Your task to perform on an android device: toggle javascript in the chrome app Image 0: 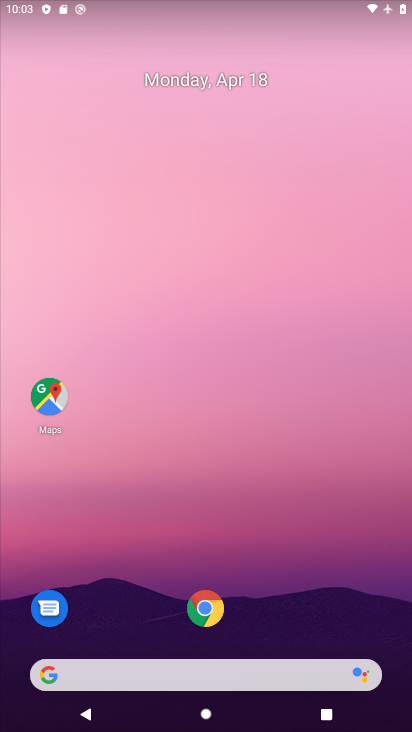
Step 0: click (212, 620)
Your task to perform on an android device: toggle javascript in the chrome app Image 1: 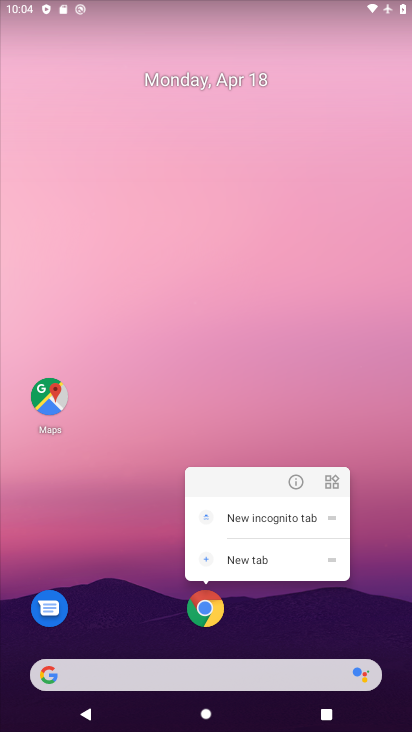
Step 1: click (212, 620)
Your task to perform on an android device: toggle javascript in the chrome app Image 2: 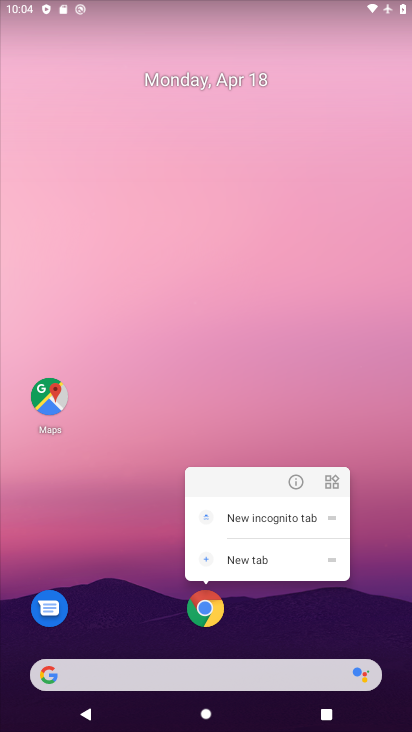
Step 2: click (212, 620)
Your task to perform on an android device: toggle javascript in the chrome app Image 3: 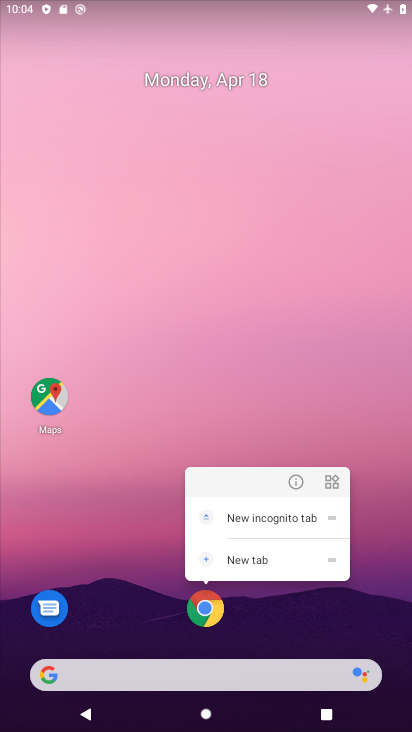
Step 3: click (202, 616)
Your task to perform on an android device: toggle javascript in the chrome app Image 4: 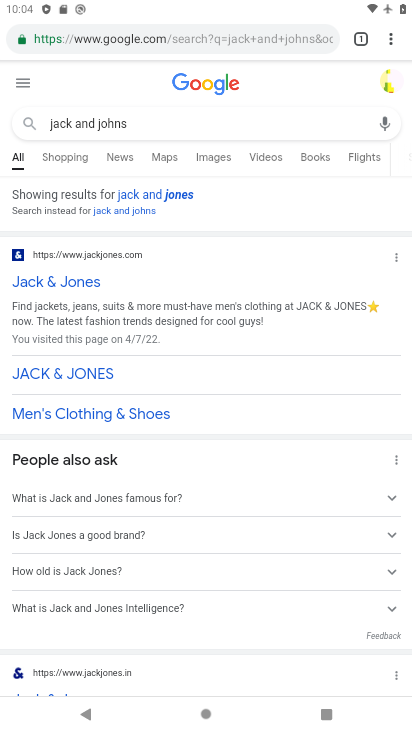
Step 4: click (387, 42)
Your task to perform on an android device: toggle javascript in the chrome app Image 5: 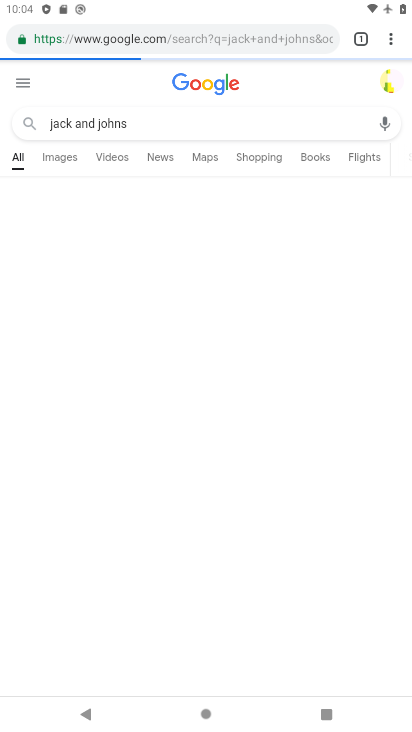
Step 5: drag from (390, 39) to (263, 433)
Your task to perform on an android device: toggle javascript in the chrome app Image 6: 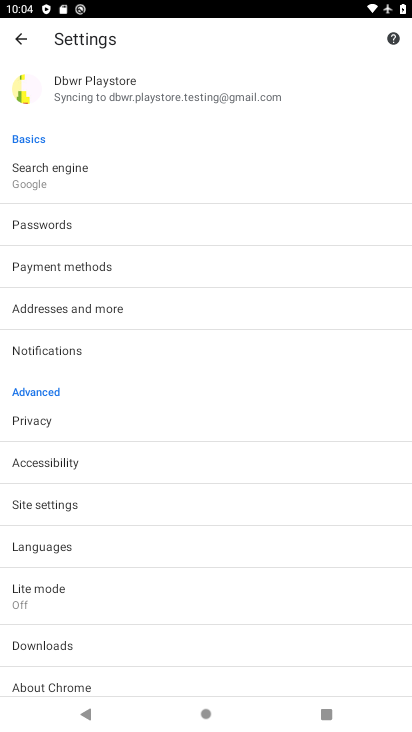
Step 6: click (51, 501)
Your task to perform on an android device: toggle javascript in the chrome app Image 7: 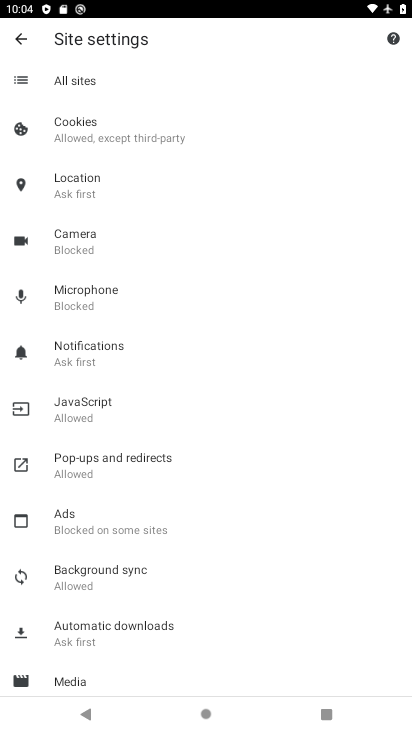
Step 7: click (85, 415)
Your task to perform on an android device: toggle javascript in the chrome app Image 8: 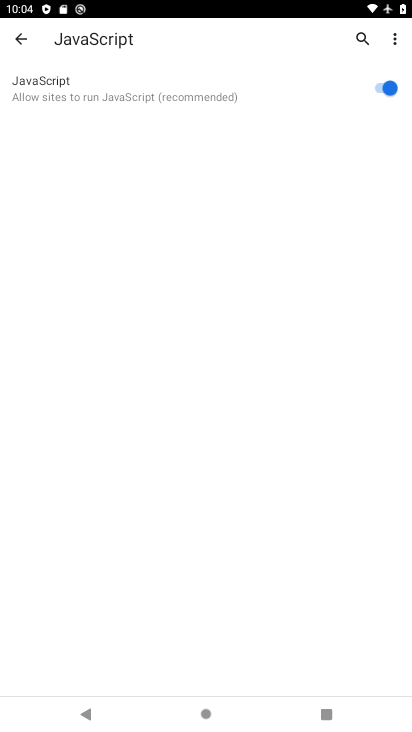
Step 8: click (389, 89)
Your task to perform on an android device: toggle javascript in the chrome app Image 9: 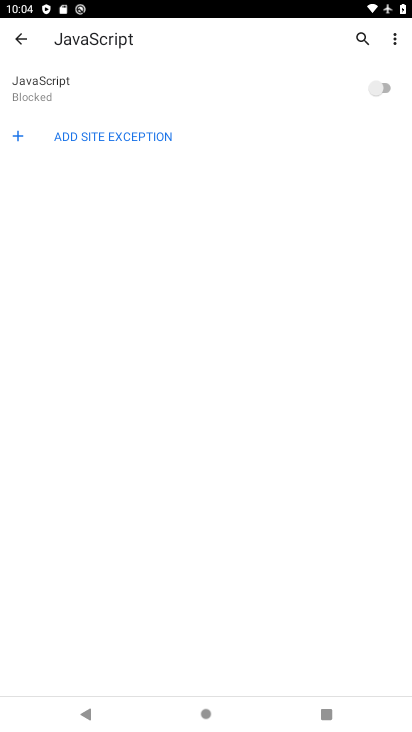
Step 9: task complete